Your task to perform on an android device: toggle priority inbox in the gmail app Image 0: 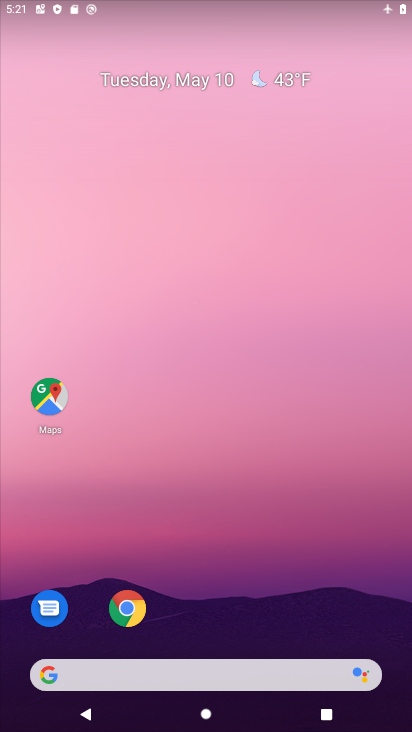
Step 0: drag from (211, 610) to (326, 44)
Your task to perform on an android device: toggle priority inbox in the gmail app Image 1: 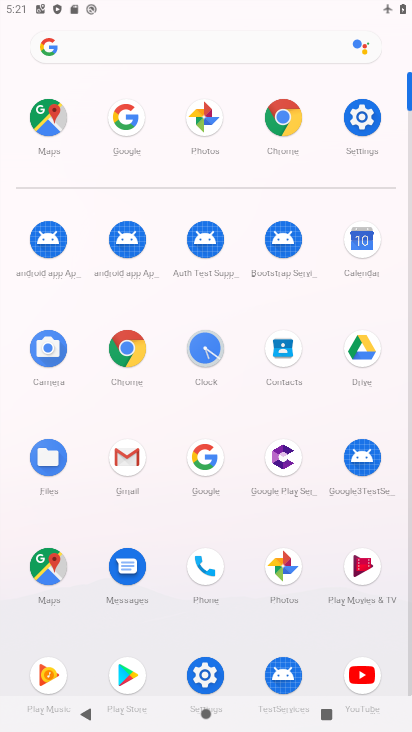
Step 1: click (120, 453)
Your task to perform on an android device: toggle priority inbox in the gmail app Image 2: 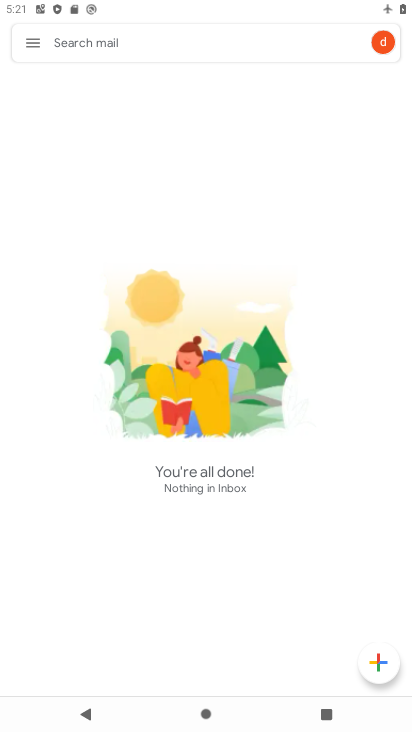
Step 2: click (35, 37)
Your task to perform on an android device: toggle priority inbox in the gmail app Image 3: 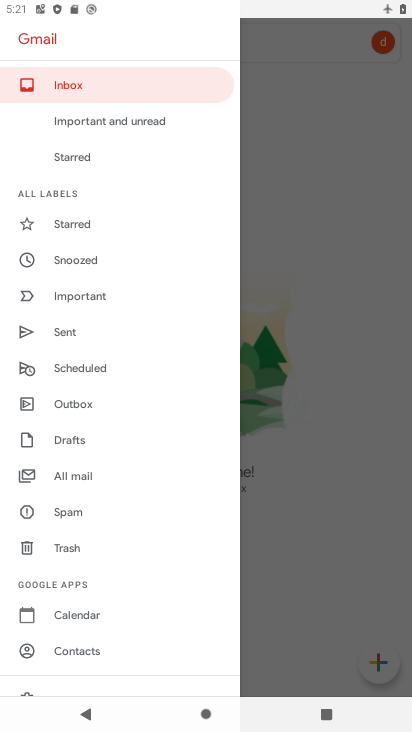
Step 3: drag from (65, 626) to (179, 12)
Your task to perform on an android device: toggle priority inbox in the gmail app Image 4: 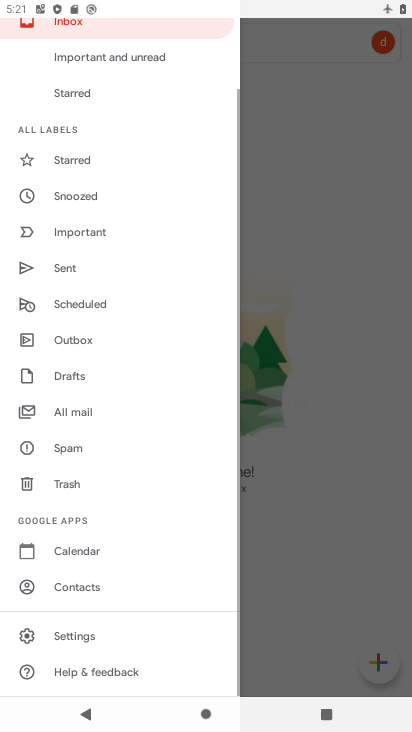
Step 4: click (72, 637)
Your task to perform on an android device: toggle priority inbox in the gmail app Image 5: 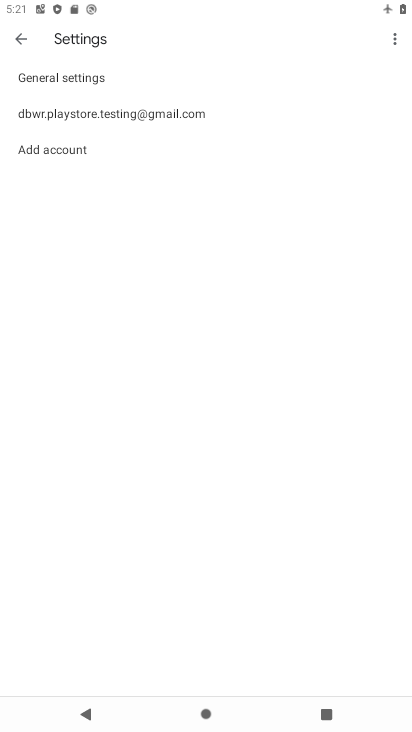
Step 5: click (137, 101)
Your task to perform on an android device: toggle priority inbox in the gmail app Image 6: 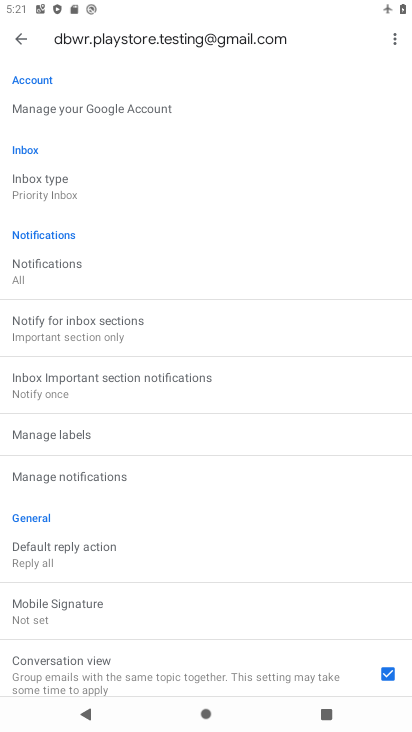
Step 6: click (57, 192)
Your task to perform on an android device: toggle priority inbox in the gmail app Image 7: 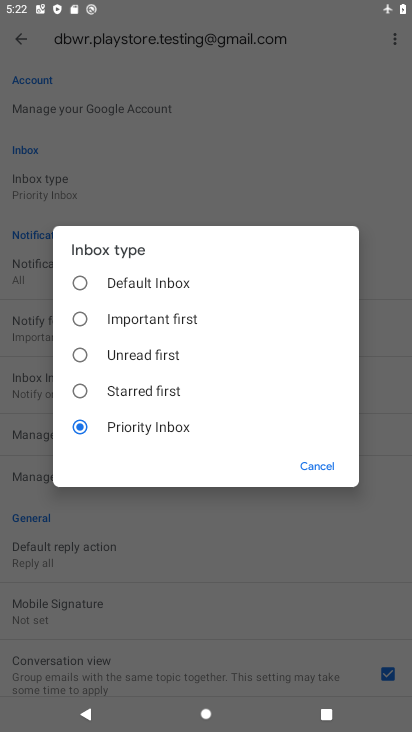
Step 7: click (81, 430)
Your task to perform on an android device: toggle priority inbox in the gmail app Image 8: 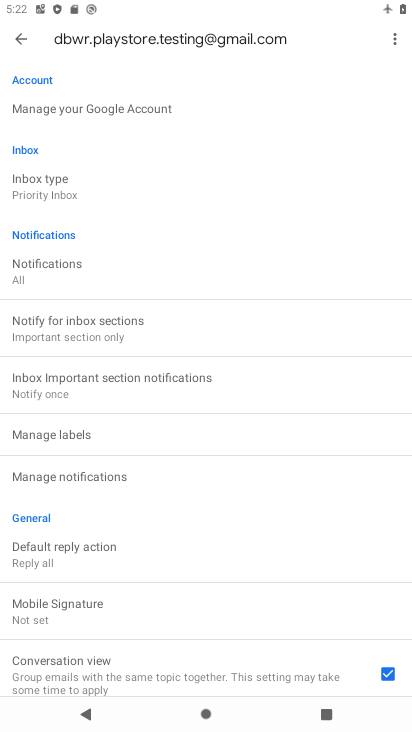
Step 8: task complete